Your task to perform on an android device: open app "Mercado Libre" (install if not already installed) and go to login screen Image 0: 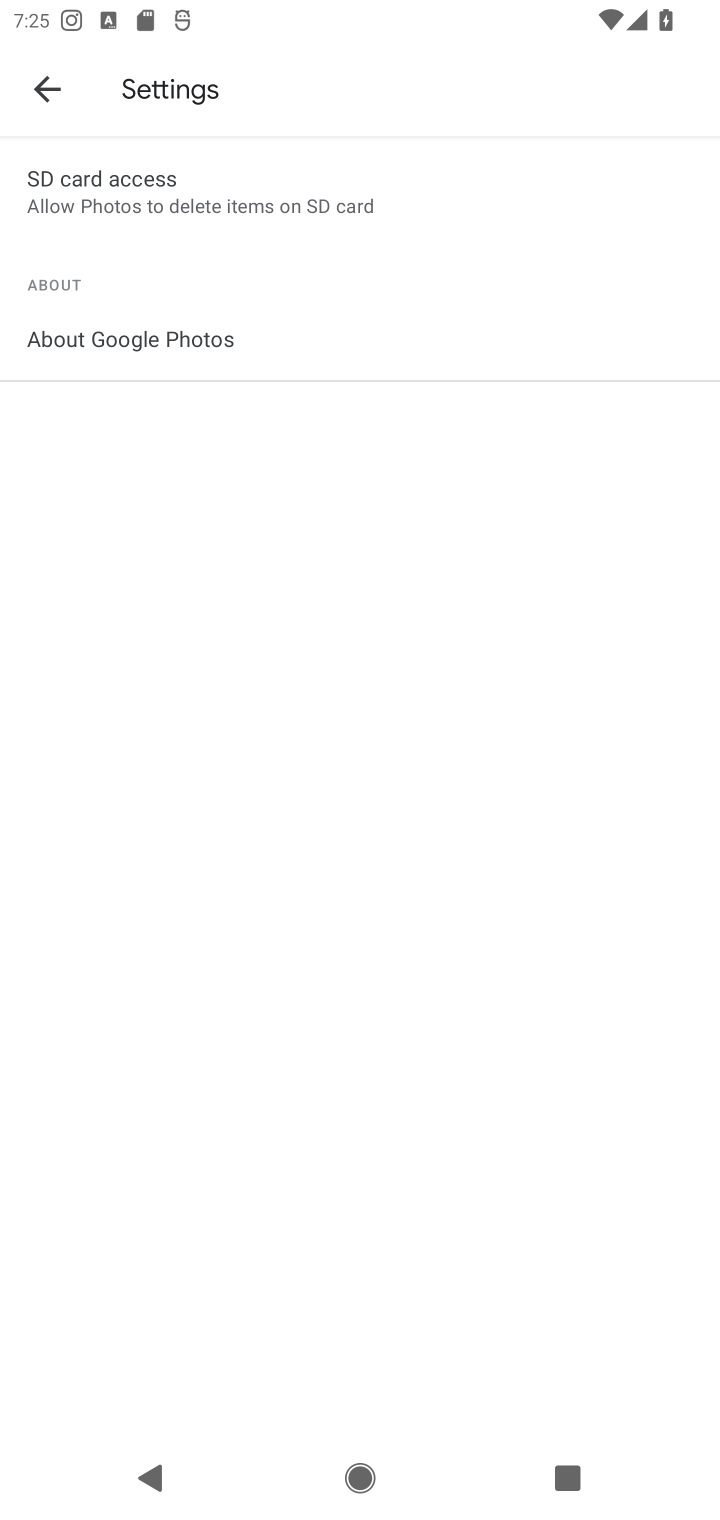
Step 0: press home button
Your task to perform on an android device: open app "Mercado Libre" (install if not already installed) and go to login screen Image 1: 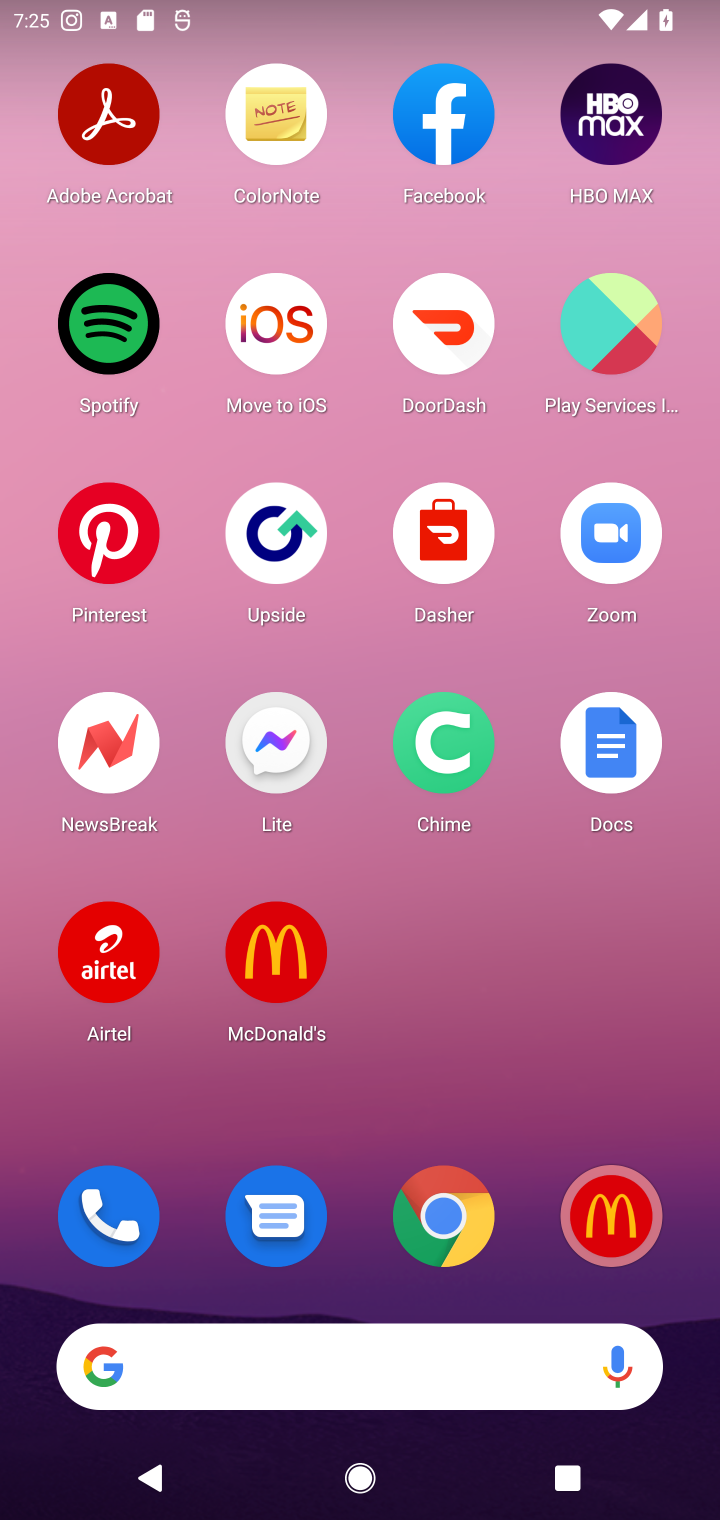
Step 1: drag from (410, 993) to (448, 209)
Your task to perform on an android device: open app "Mercado Libre" (install if not already installed) and go to login screen Image 2: 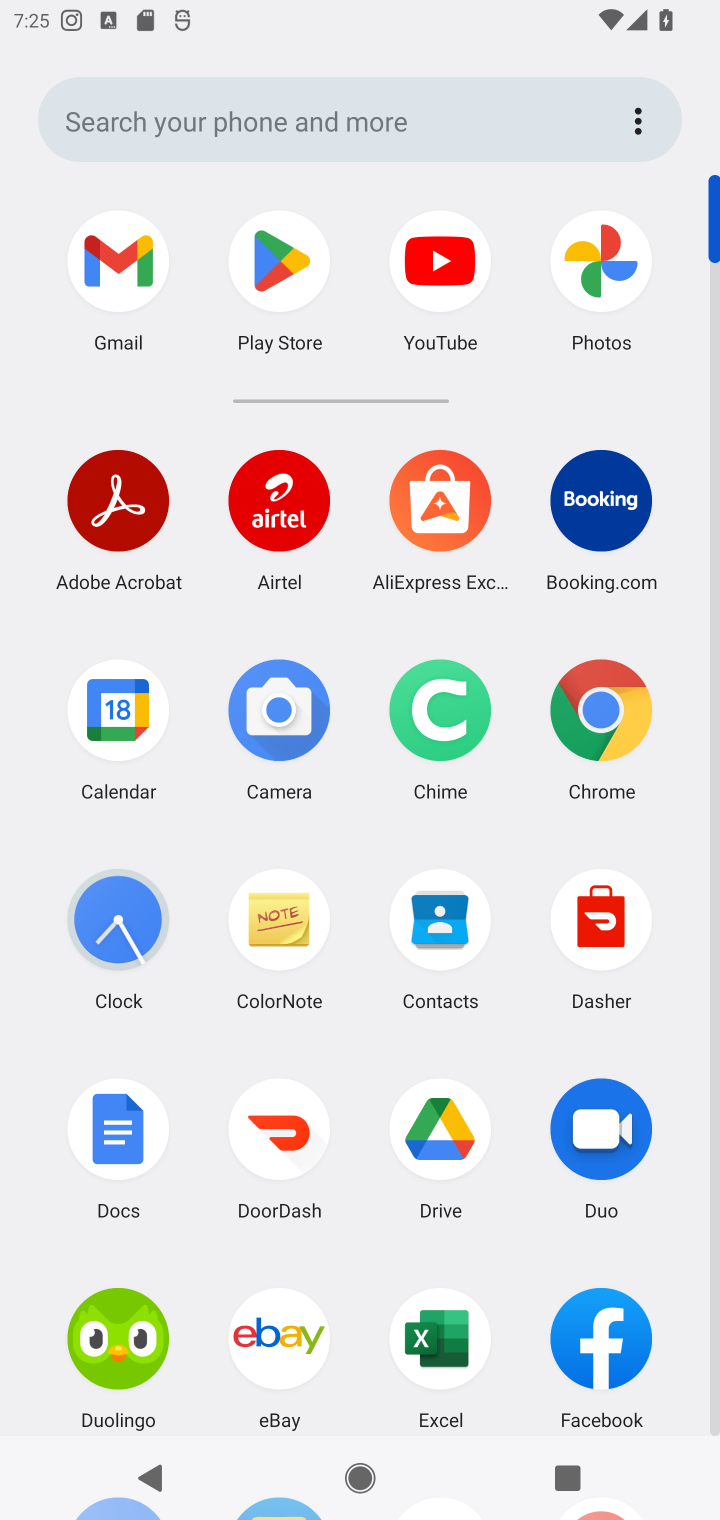
Step 2: click (303, 263)
Your task to perform on an android device: open app "Mercado Libre" (install if not already installed) and go to login screen Image 3: 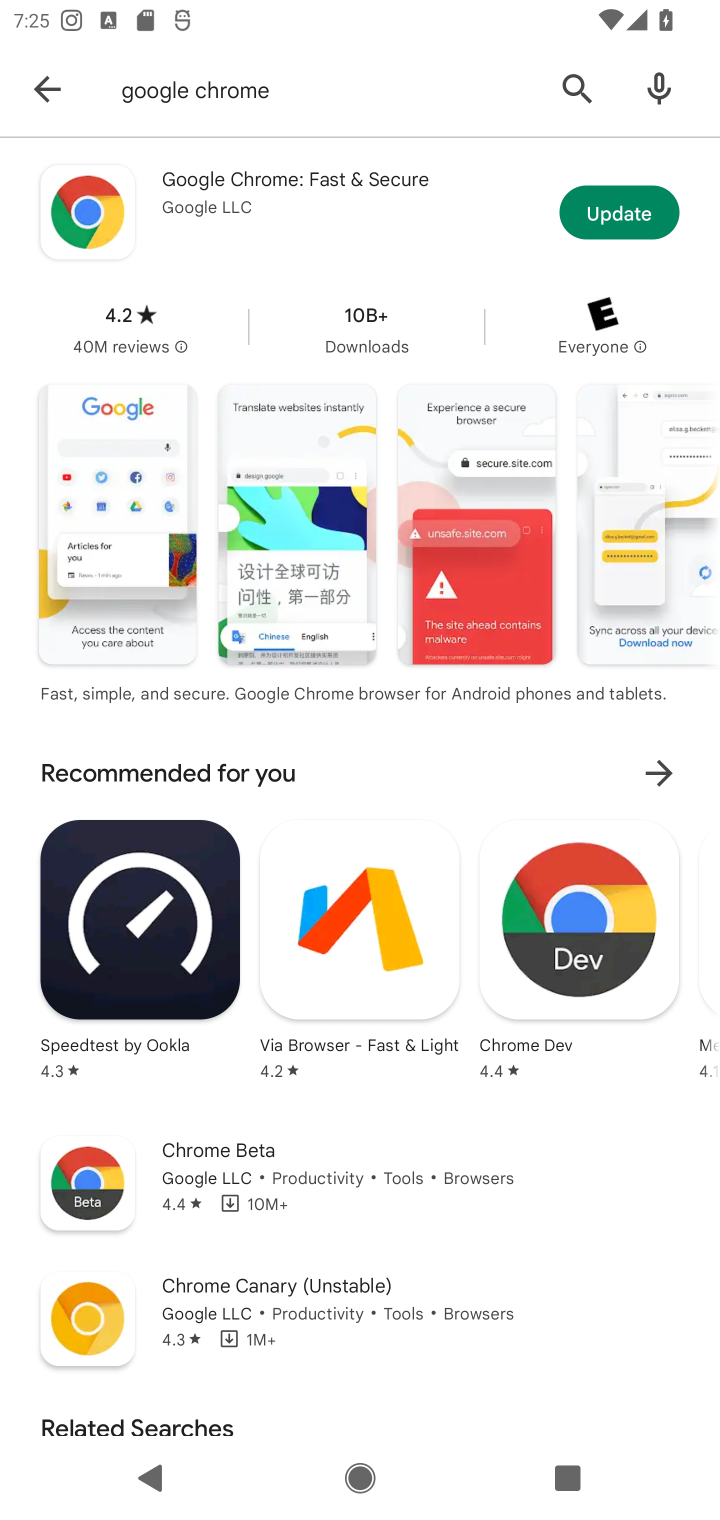
Step 3: click (572, 91)
Your task to perform on an android device: open app "Mercado Libre" (install if not already installed) and go to login screen Image 4: 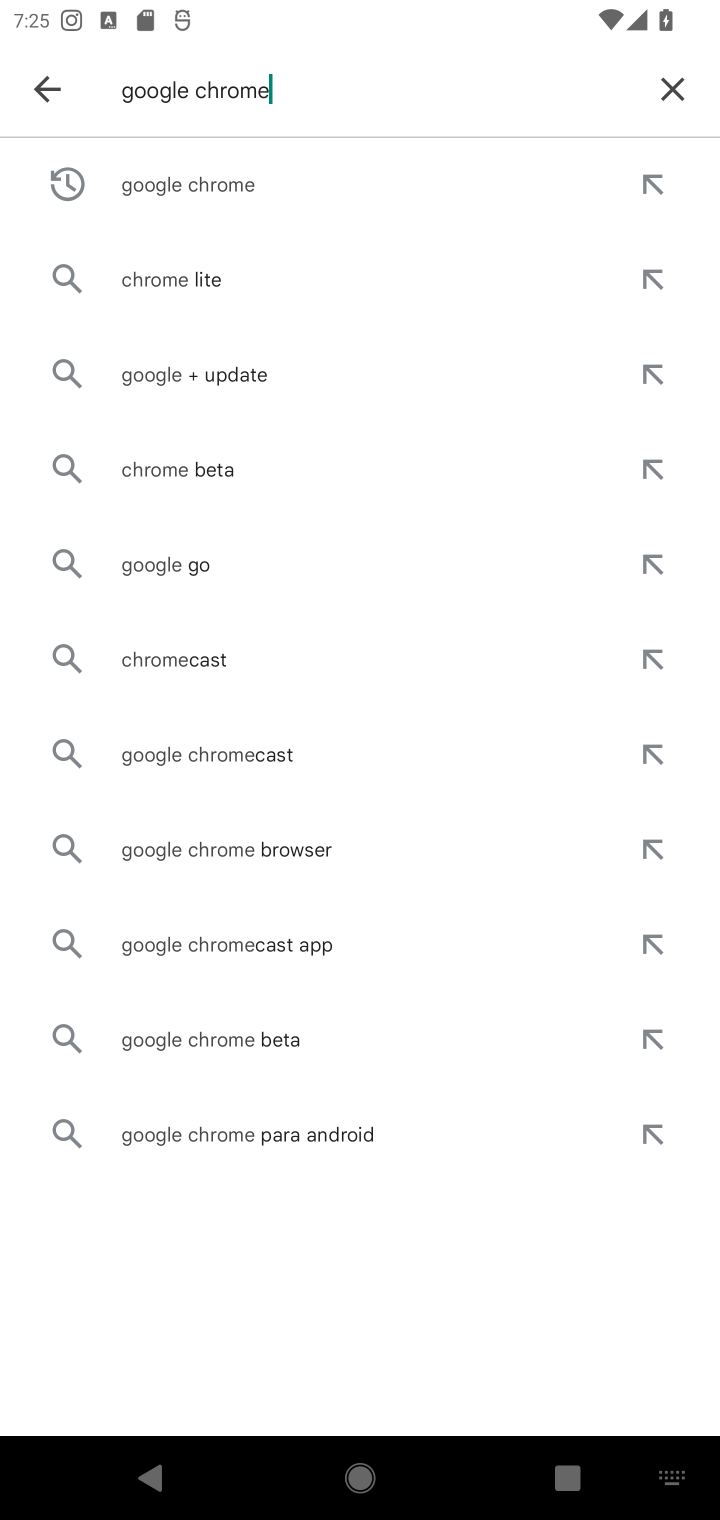
Step 4: type "Mercado Libre"
Your task to perform on an android device: open app "Mercado Libre" (install if not already installed) and go to login screen Image 5: 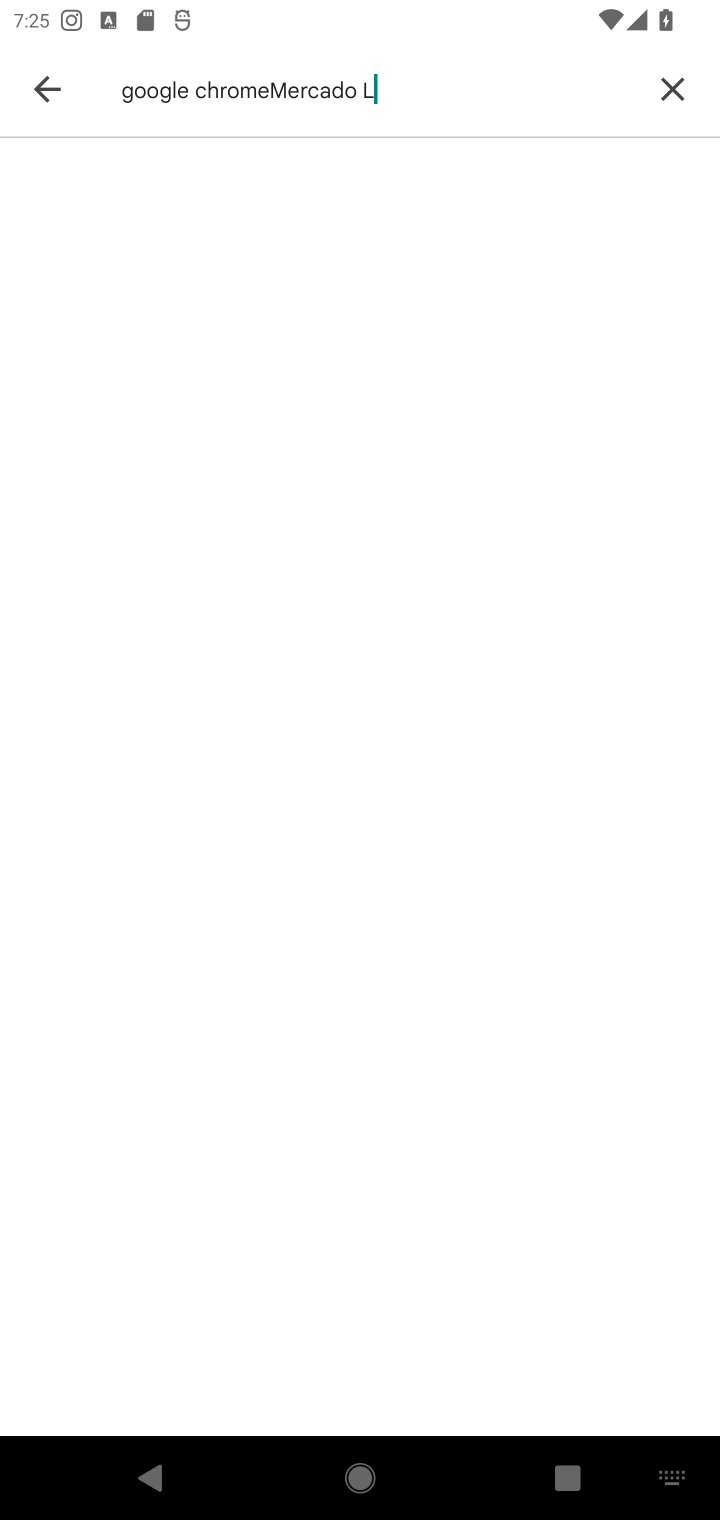
Step 5: type ""
Your task to perform on an android device: open app "Mercado Libre" (install if not already installed) and go to login screen Image 6: 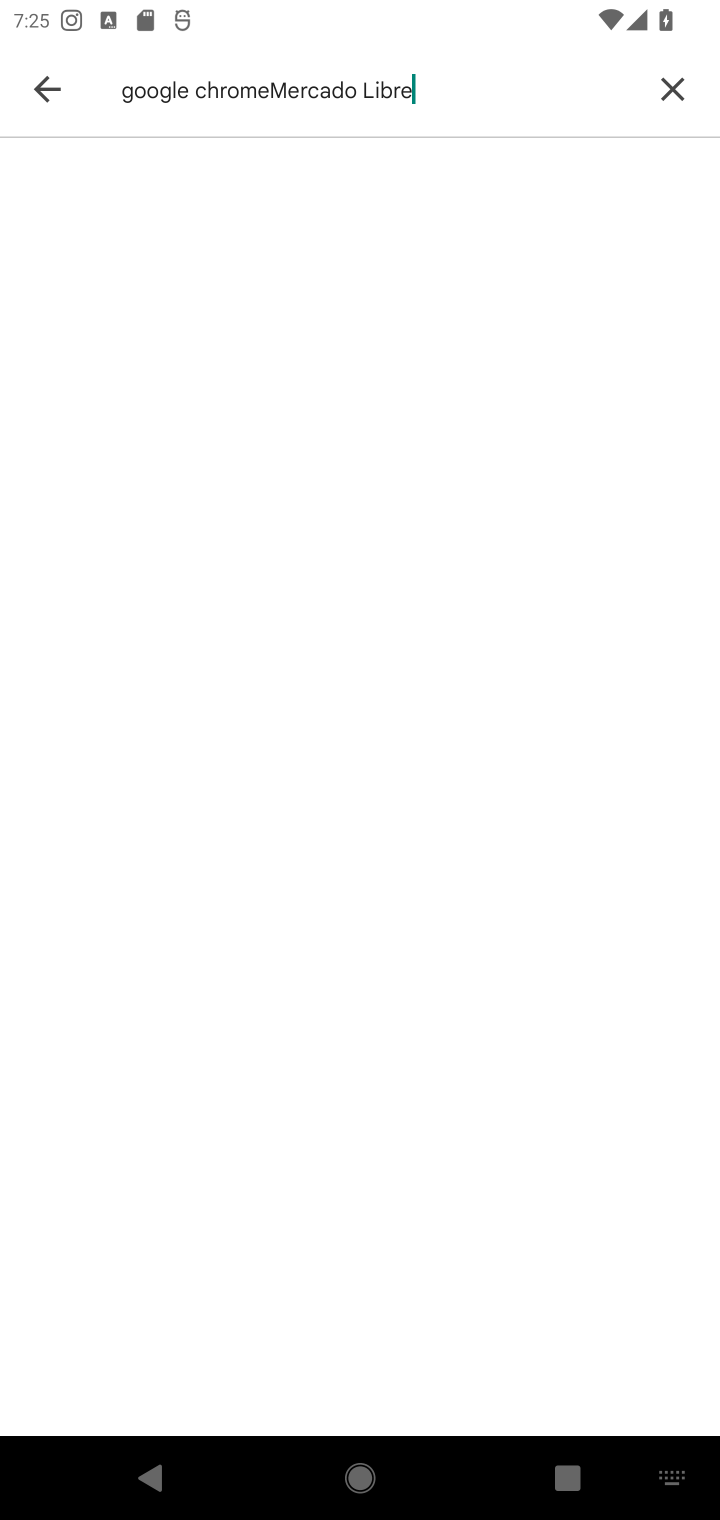
Step 6: click (672, 85)
Your task to perform on an android device: open app "Mercado Libre" (install if not already installed) and go to login screen Image 7: 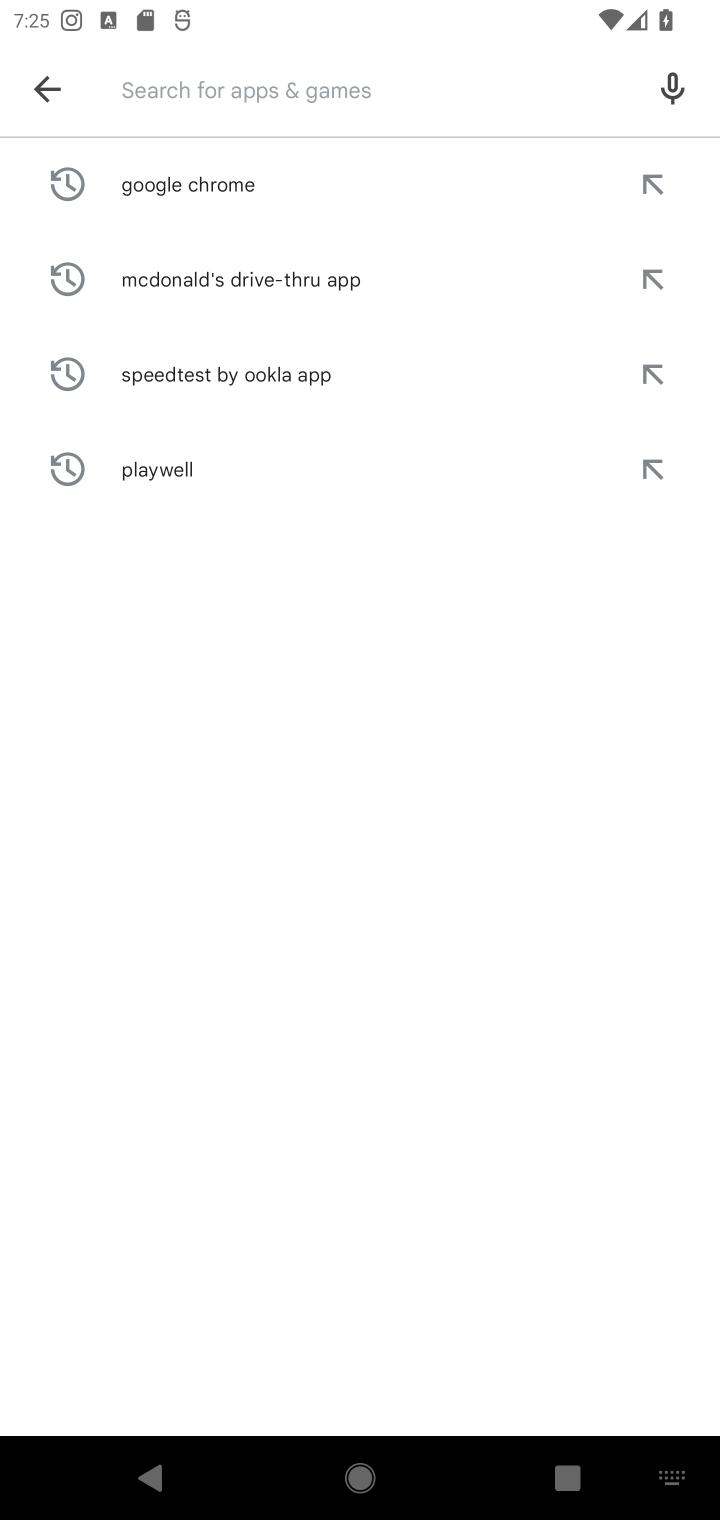
Step 7: type "Mercado Libre"
Your task to perform on an android device: open app "Mercado Libre" (install if not already installed) and go to login screen Image 8: 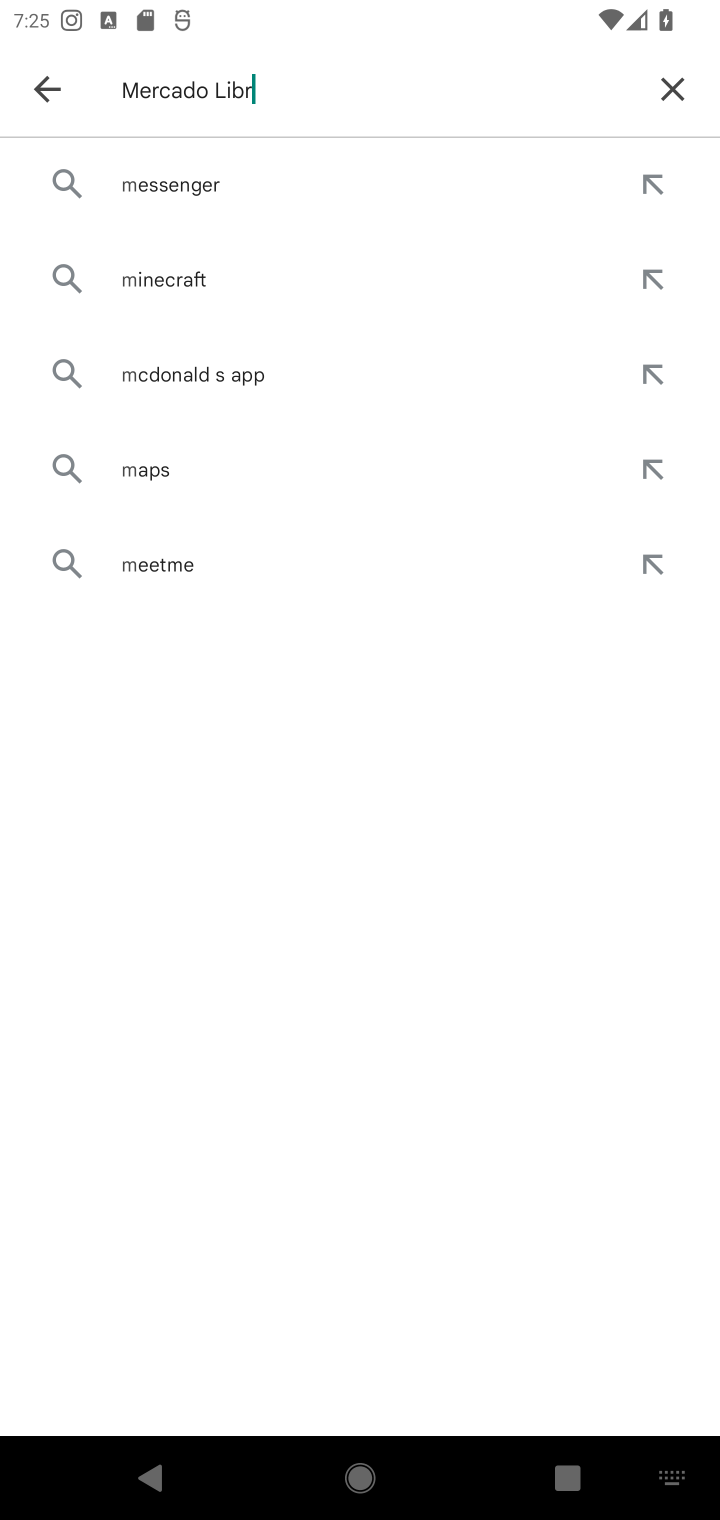
Step 8: type ""
Your task to perform on an android device: open app "Mercado Libre" (install if not already installed) and go to login screen Image 9: 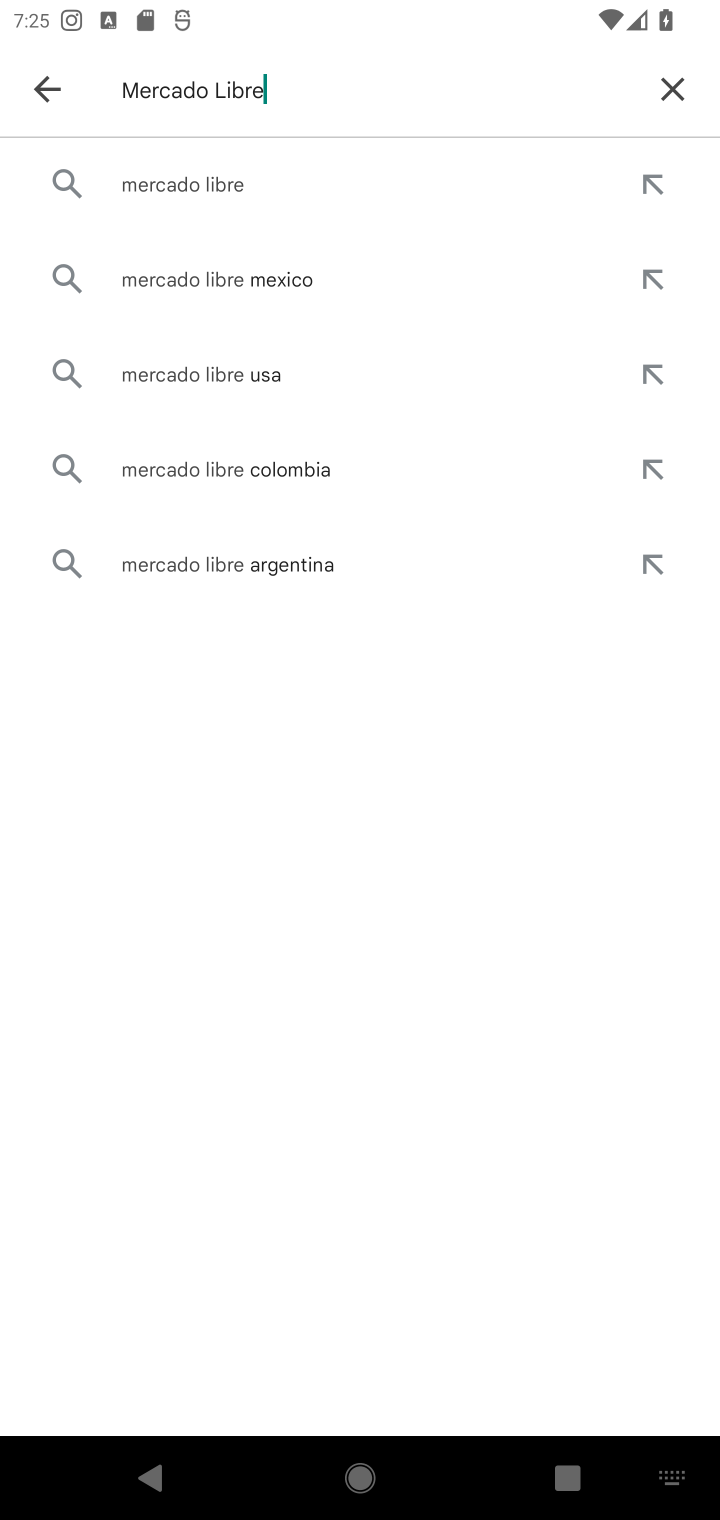
Step 9: click (215, 178)
Your task to perform on an android device: open app "Mercado Libre" (install if not already installed) and go to login screen Image 10: 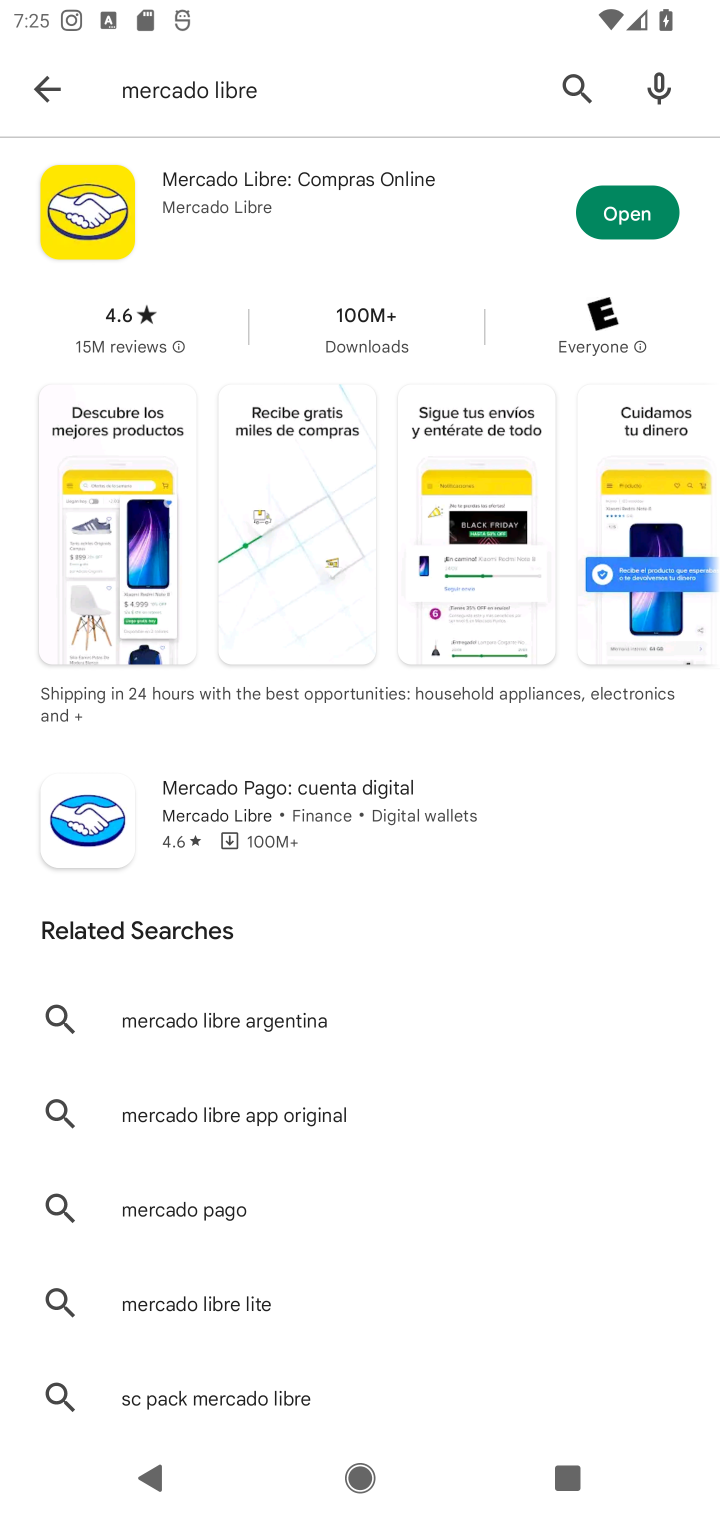
Step 10: click (597, 222)
Your task to perform on an android device: open app "Mercado Libre" (install if not already installed) and go to login screen Image 11: 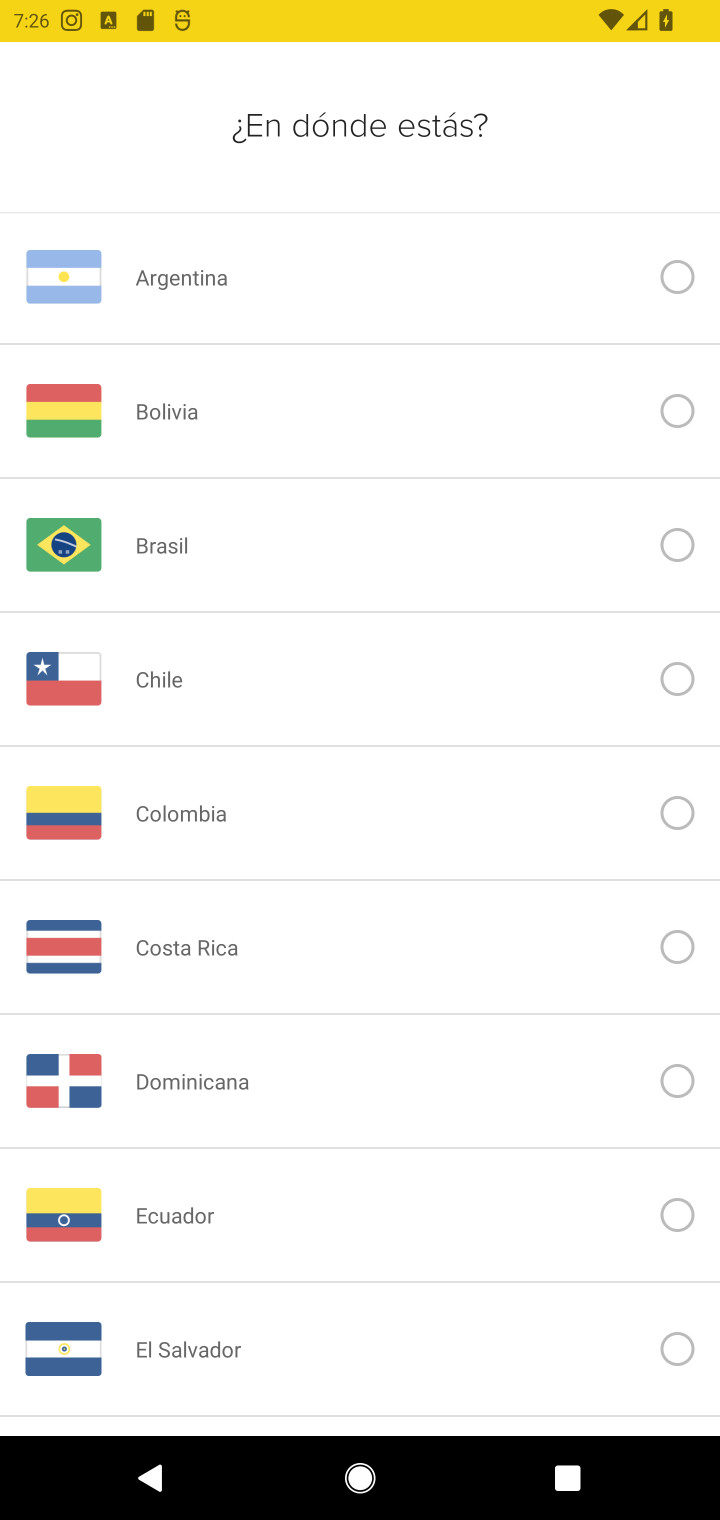
Step 11: press home button
Your task to perform on an android device: open app "Mercado Libre" (install if not already installed) and go to login screen Image 12: 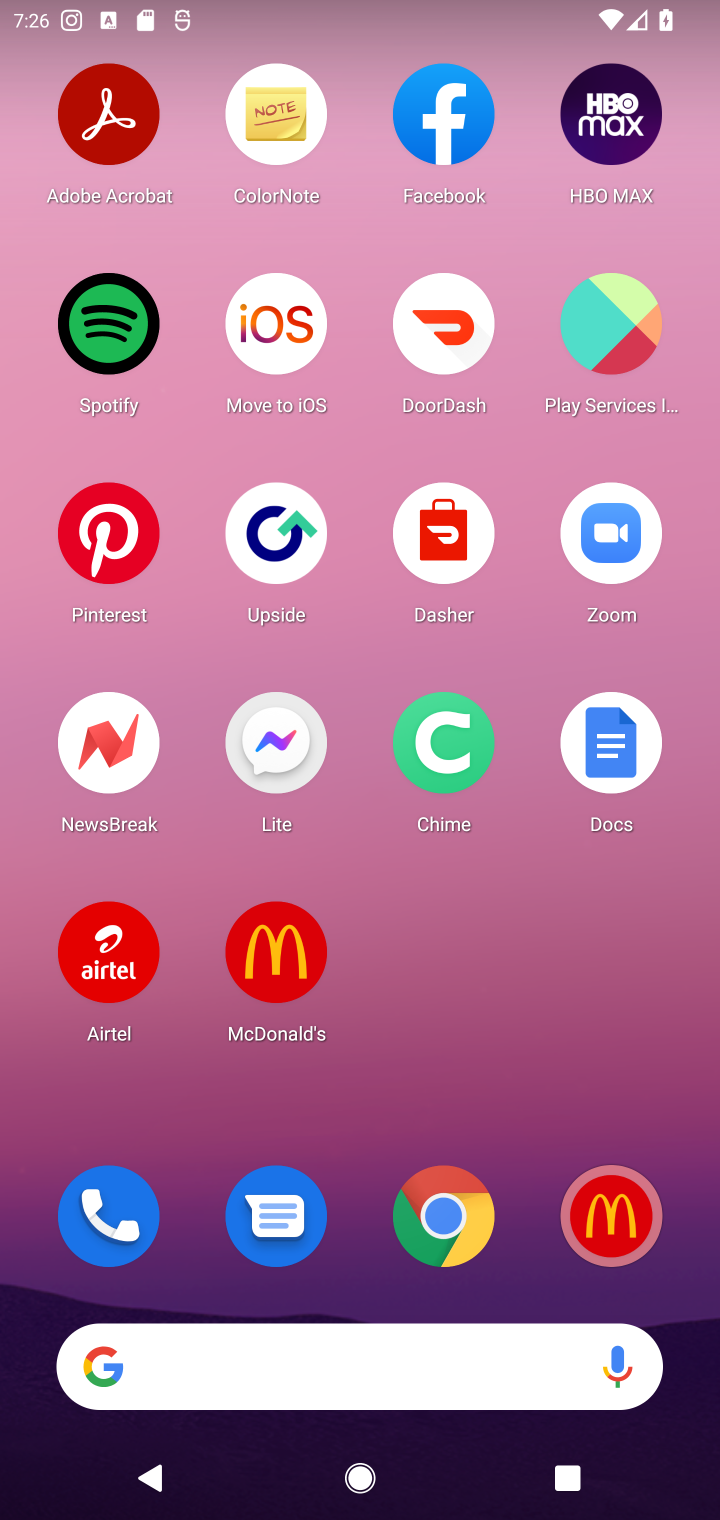
Step 12: drag from (414, 723) to (408, 172)
Your task to perform on an android device: open app "Mercado Libre" (install if not already installed) and go to login screen Image 13: 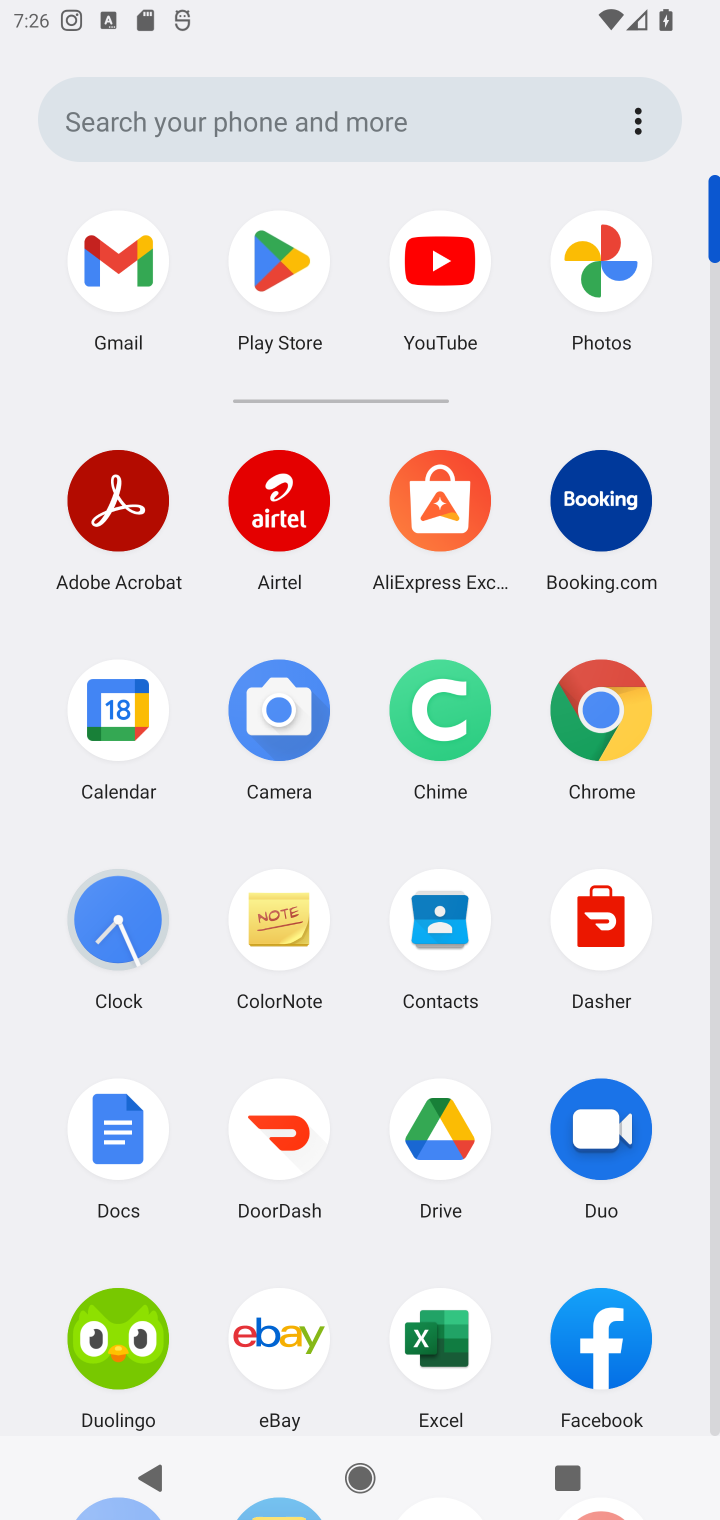
Step 13: click (265, 245)
Your task to perform on an android device: open app "Mercado Libre" (install if not already installed) and go to login screen Image 14: 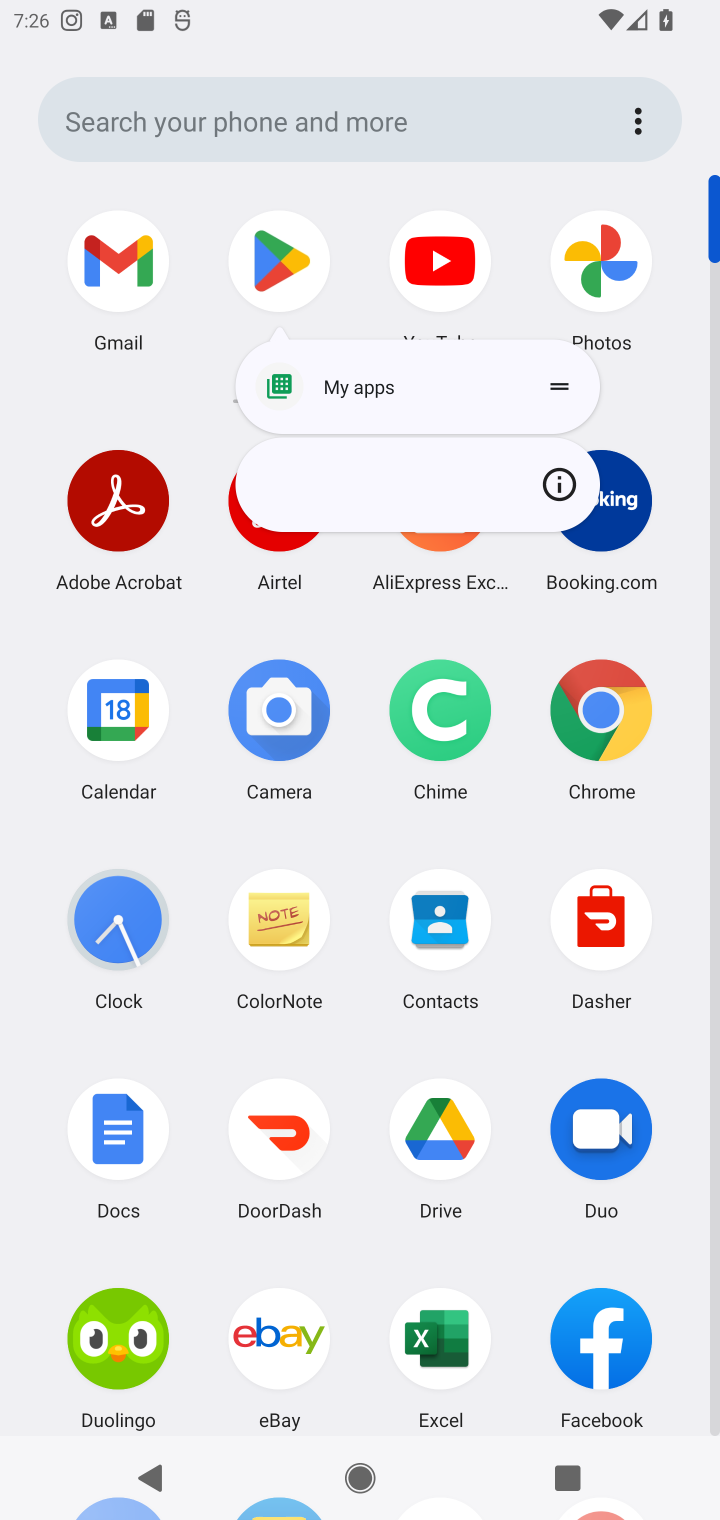
Step 14: click (265, 245)
Your task to perform on an android device: open app "Mercado Libre" (install if not already installed) and go to login screen Image 15: 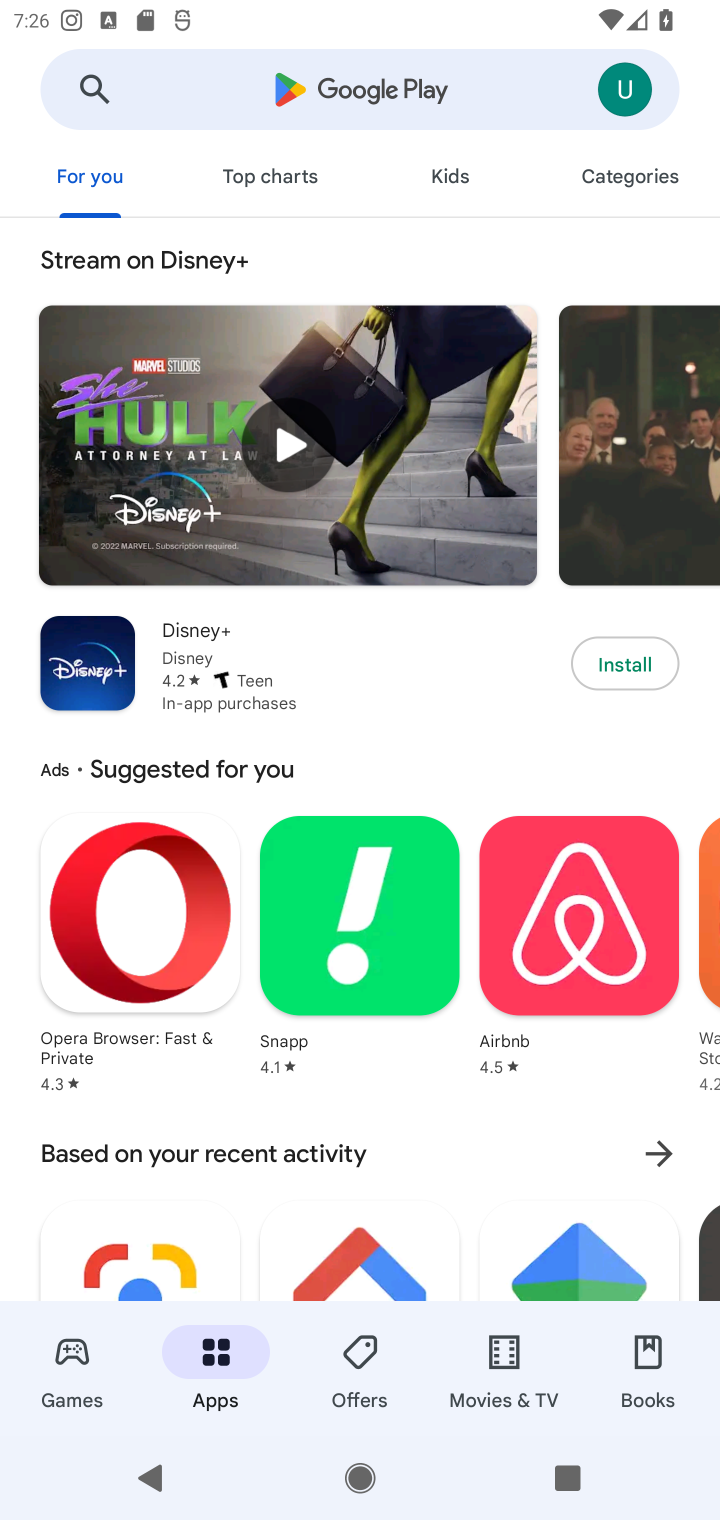
Step 15: click (403, 92)
Your task to perform on an android device: open app "Mercado Libre" (install if not already installed) and go to login screen Image 16: 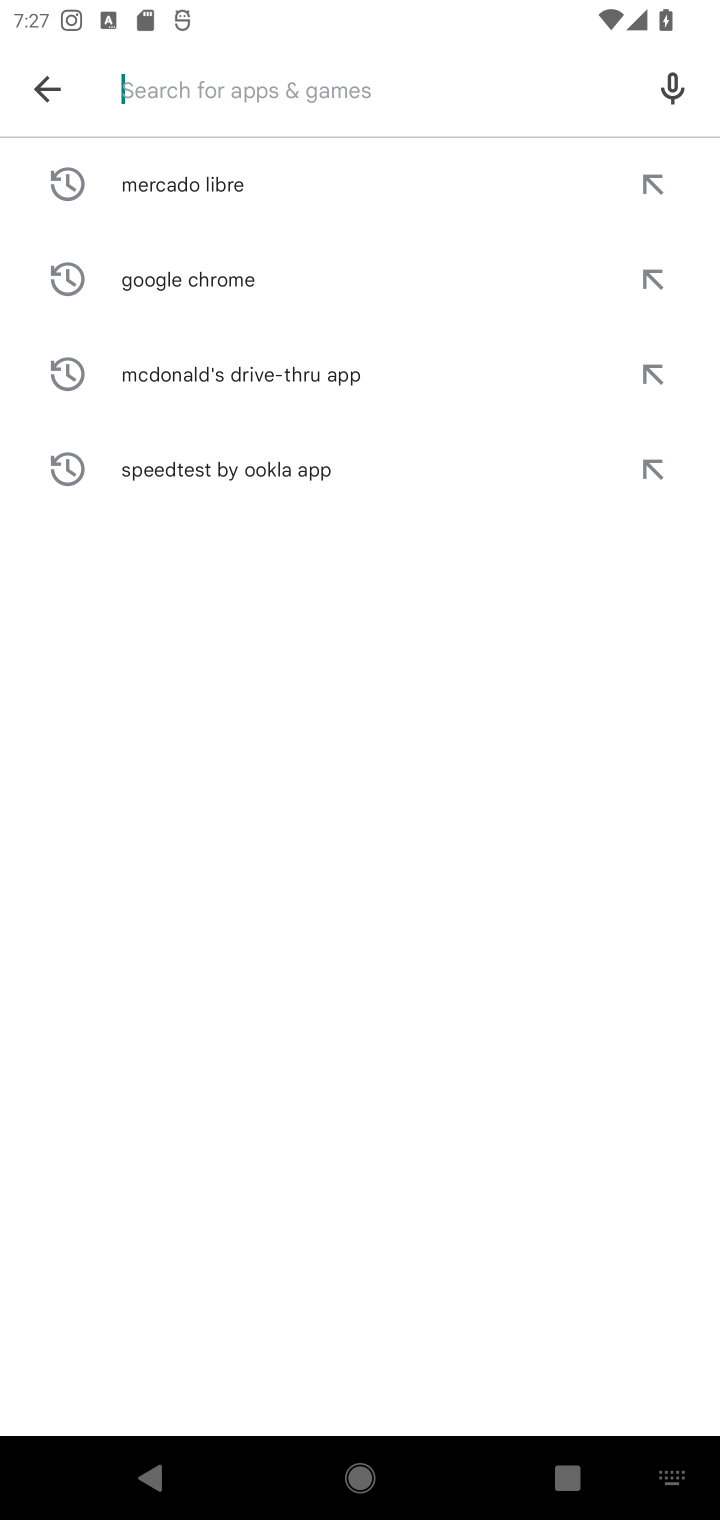
Step 16: type "Mercado Libre"
Your task to perform on an android device: open app "Mercado Libre" (install if not already installed) and go to login screen Image 17: 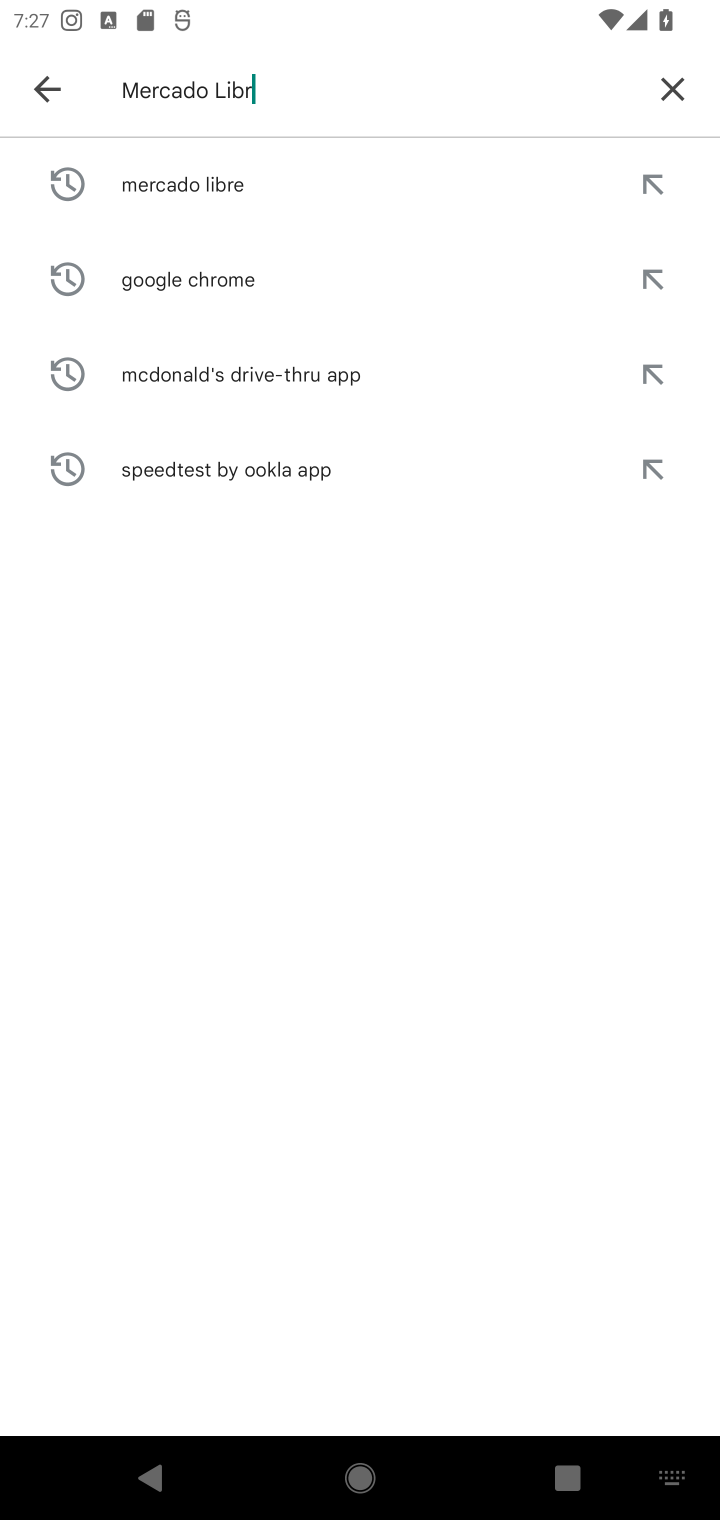
Step 17: type ""
Your task to perform on an android device: open app "Mercado Libre" (install if not already installed) and go to login screen Image 18: 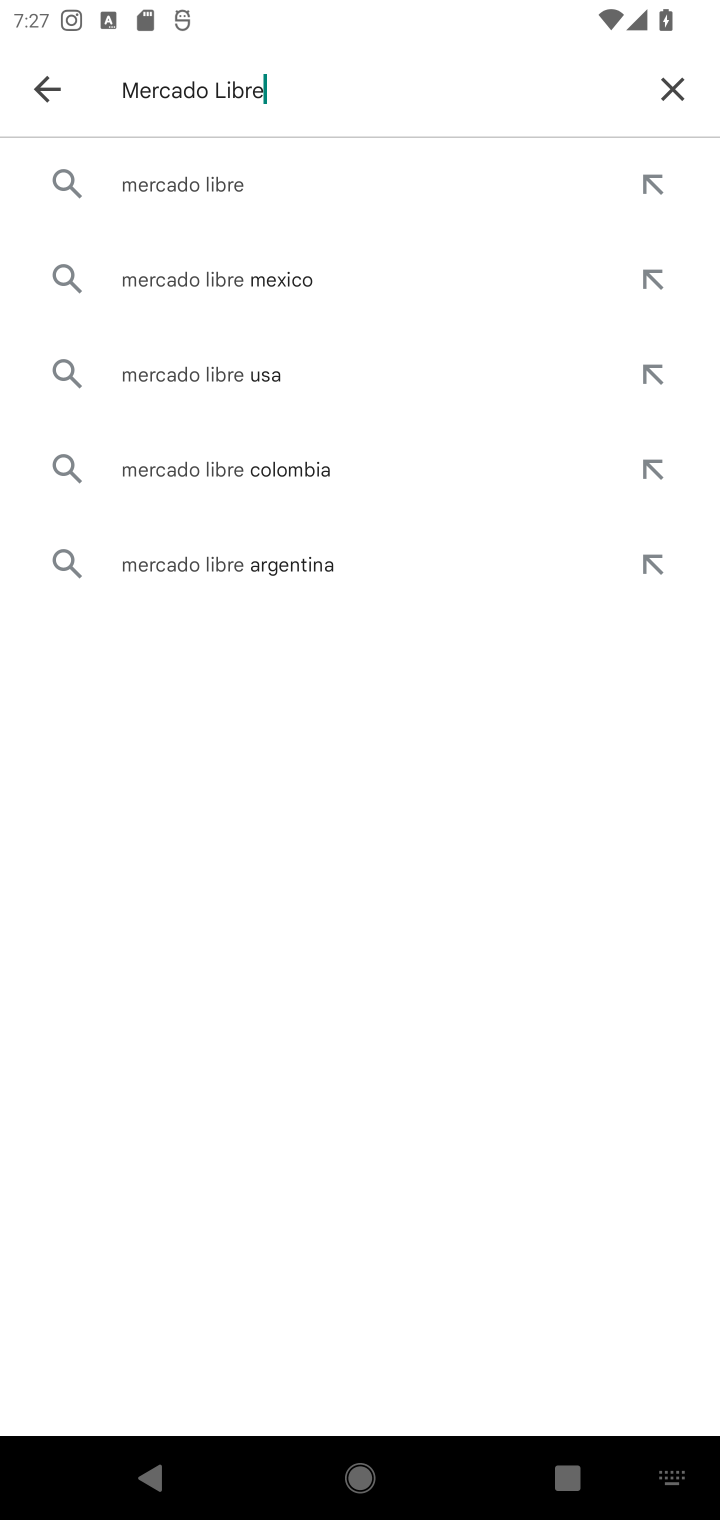
Step 18: click (264, 181)
Your task to perform on an android device: open app "Mercado Libre" (install if not already installed) and go to login screen Image 19: 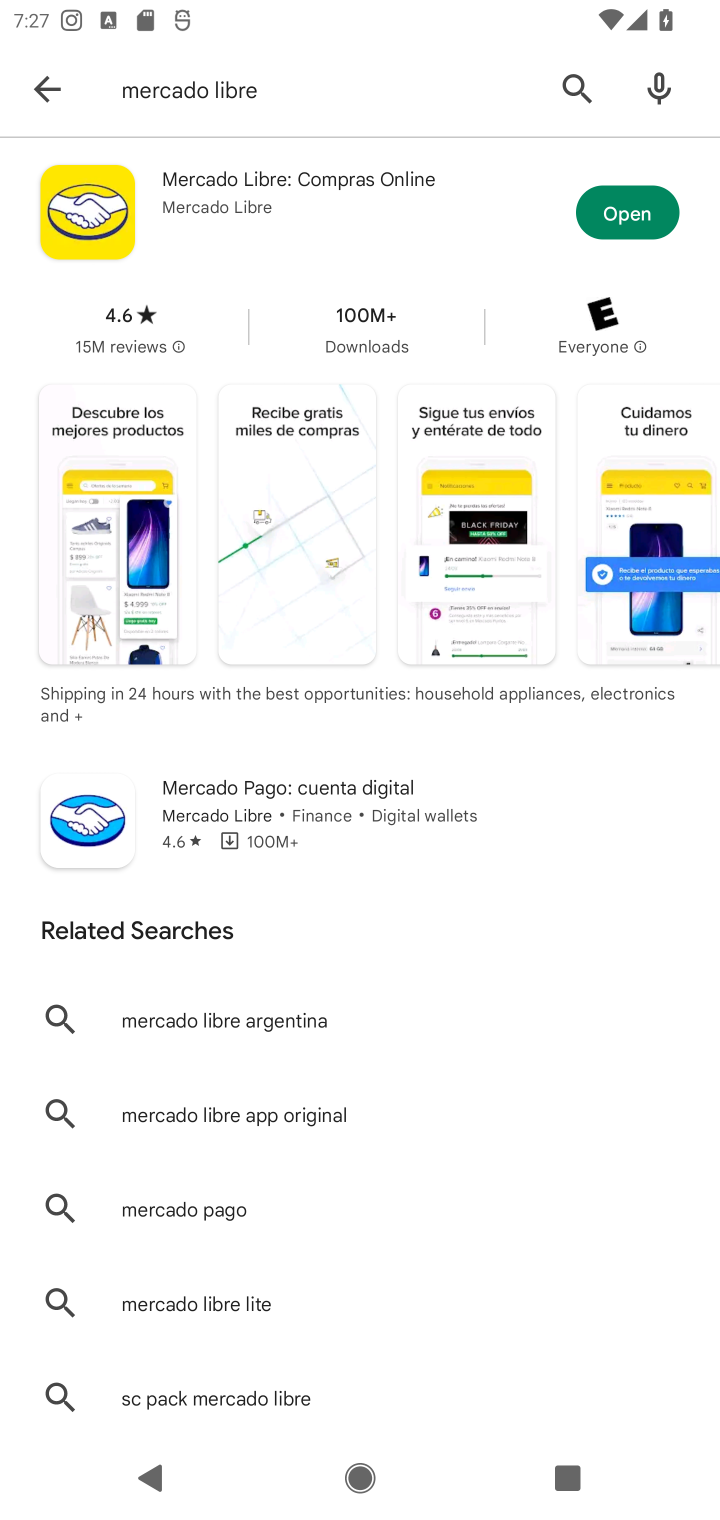
Step 19: click (635, 204)
Your task to perform on an android device: open app "Mercado Libre" (install if not already installed) and go to login screen Image 20: 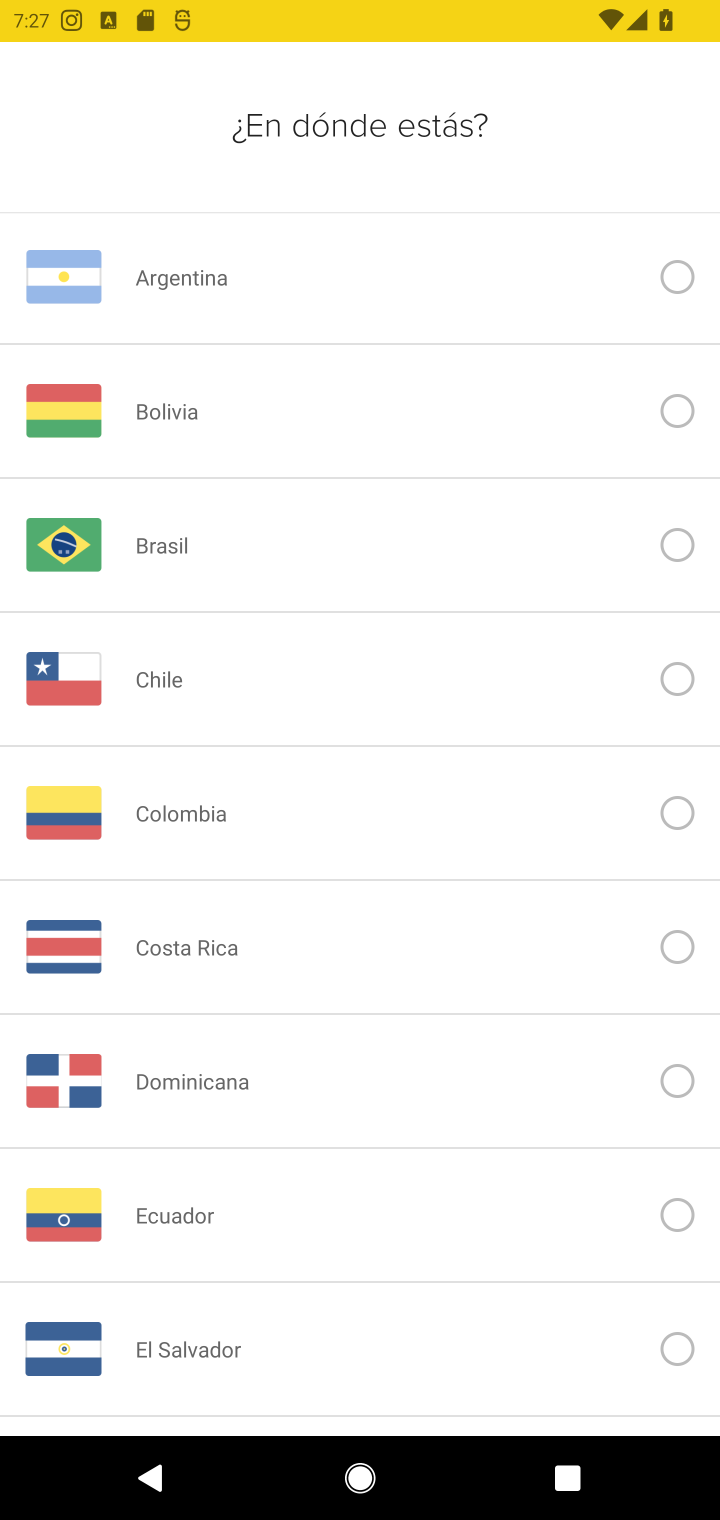
Step 20: task complete